Your task to perform on an android device: What is the news today? Image 0: 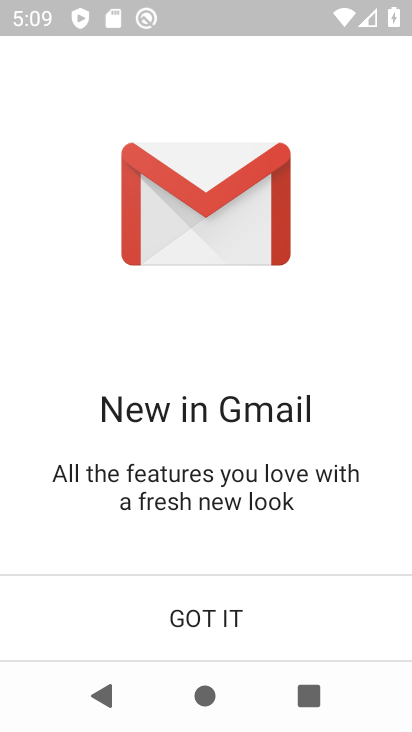
Step 0: press home button
Your task to perform on an android device: What is the news today? Image 1: 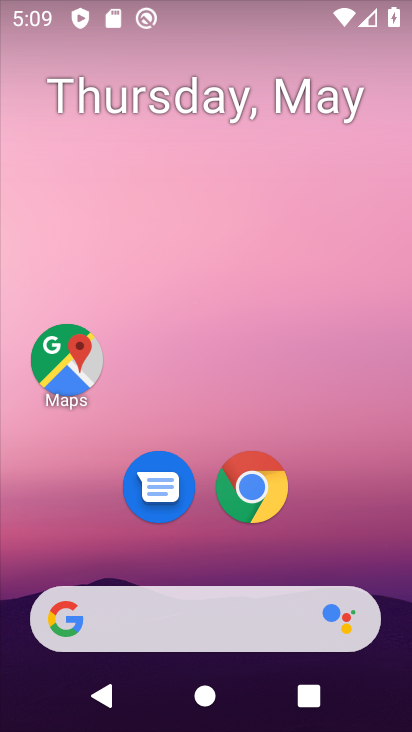
Step 1: click (210, 620)
Your task to perform on an android device: What is the news today? Image 2: 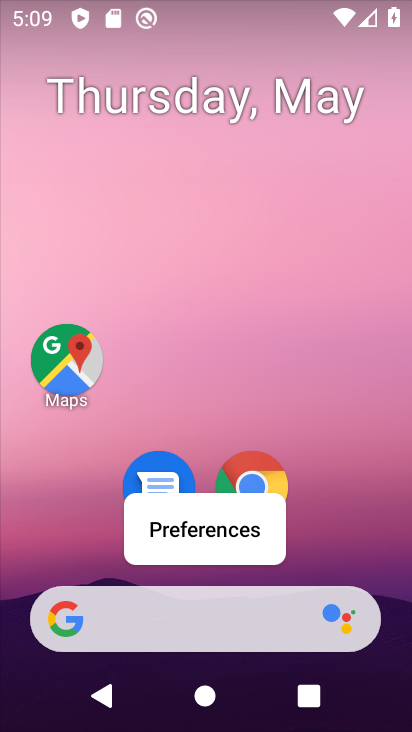
Step 2: click (194, 639)
Your task to perform on an android device: What is the news today? Image 3: 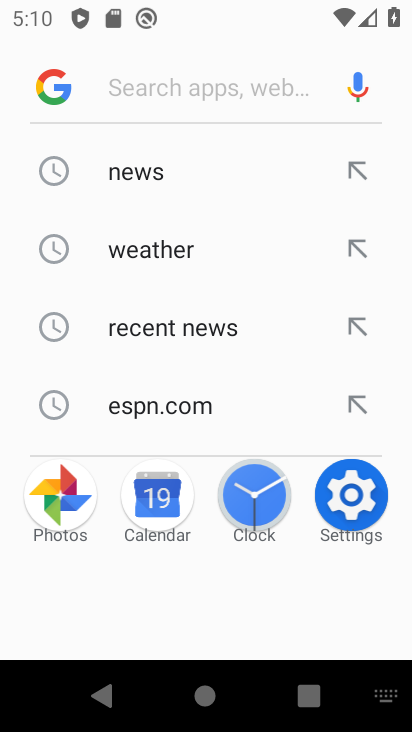
Step 3: click (119, 168)
Your task to perform on an android device: What is the news today? Image 4: 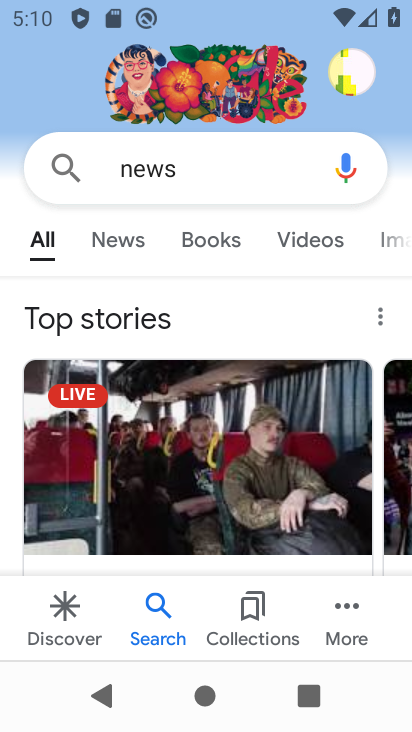
Step 4: click (128, 238)
Your task to perform on an android device: What is the news today? Image 5: 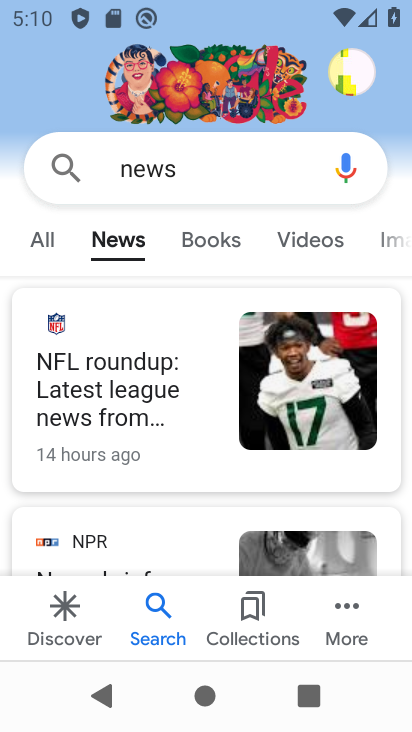
Step 5: task complete